Your task to perform on an android device: Show me popular games on the Play Store Image 0: 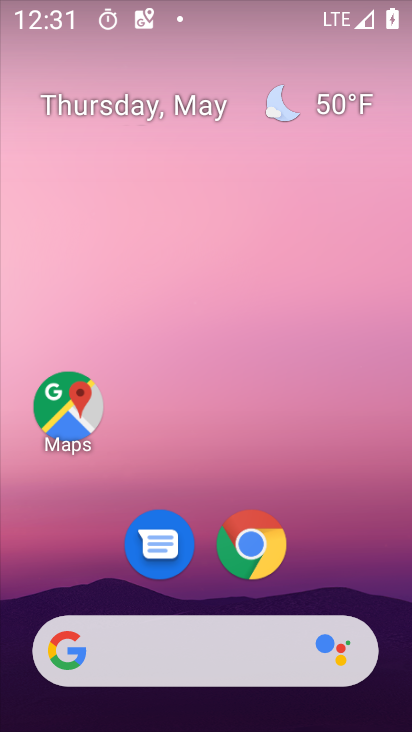
Step 0: drag from (242, 619) to (91, 42)
Your task to perform on an android device: Show me popular games on the Play Store Image 1: 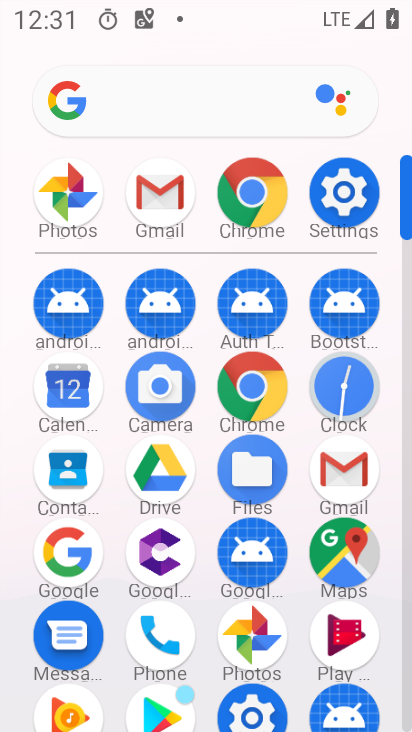
Step 1: click (158, 686)
Your task to perform on an android device: Show me popular games on the Play Store Image 2: 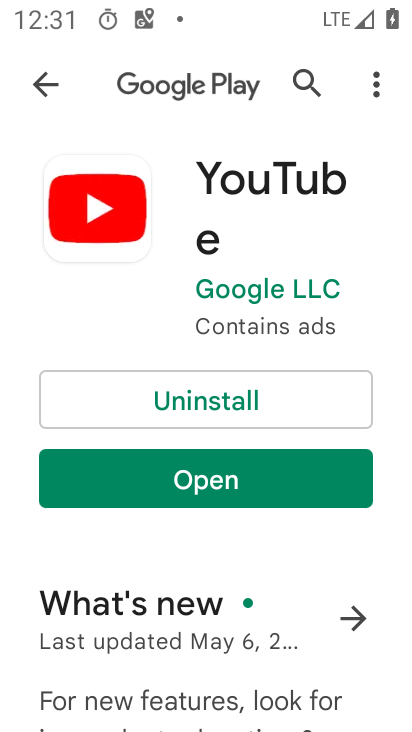
Step 2: click (50, 78)
Your task to perform on an android device: Show me popular games on the Play Store Image 3: 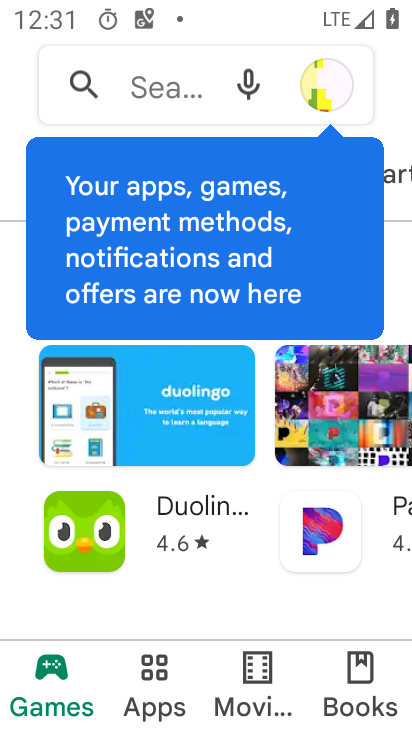
Step 3: drag from (192, 595) to (195, 191)
Your task to perform on an android device: Show me popular games on the Play Store Image 4: 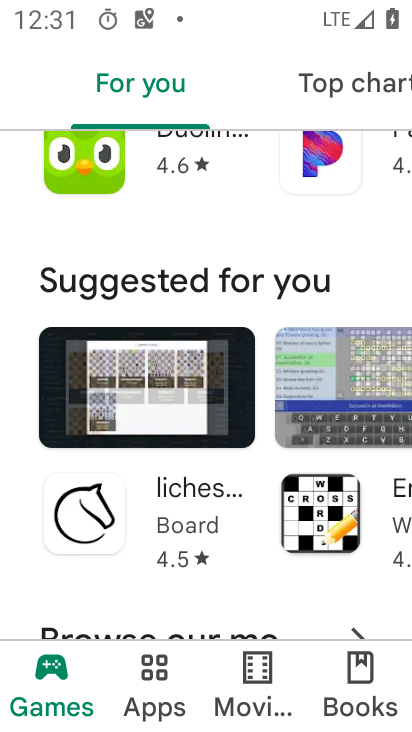
Step 4: drag from (211, 539) to (202, 175)
Your task to perform on an android device: Show me popular games on the Play Store Image 5: 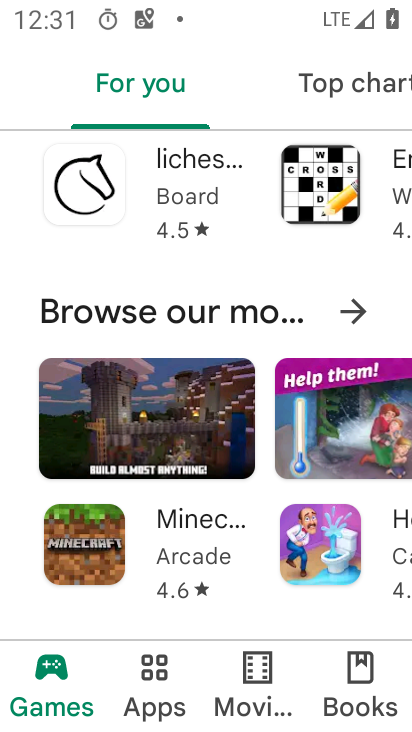
Step 5: click (347, 323)
Your task to perform on an android device: Show me popular games on the Play Store Image 6: 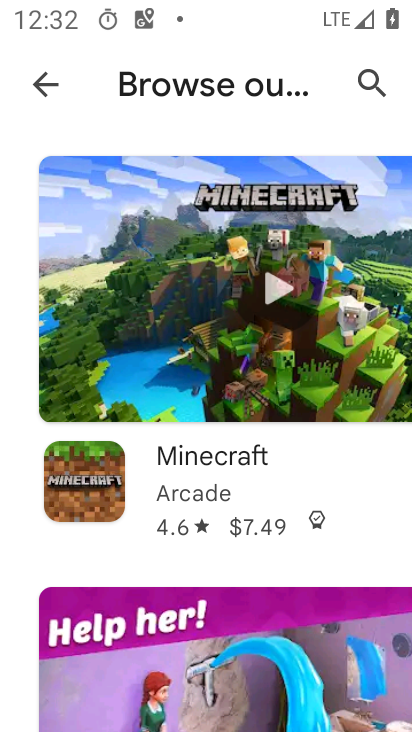
Step 6: drag from (226, 546) to (238, 1)
Your task to perform on an android device: Show me popular games on the Play Store Image 7: 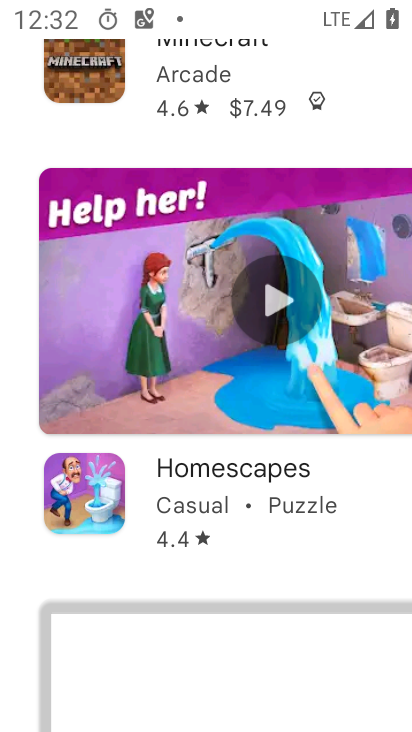
Step 7: click (238, 1)
Your task to perform on an android device: Show me popular games on the Play Store Image 8: 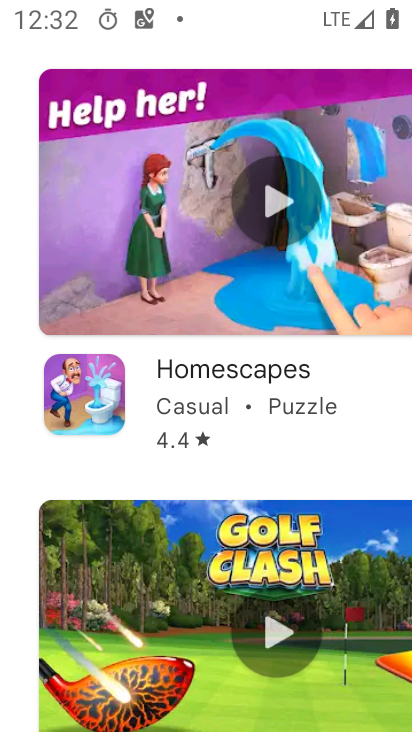
Step 8: task complete